Your task to perform on an android device: turn off location Image 0: 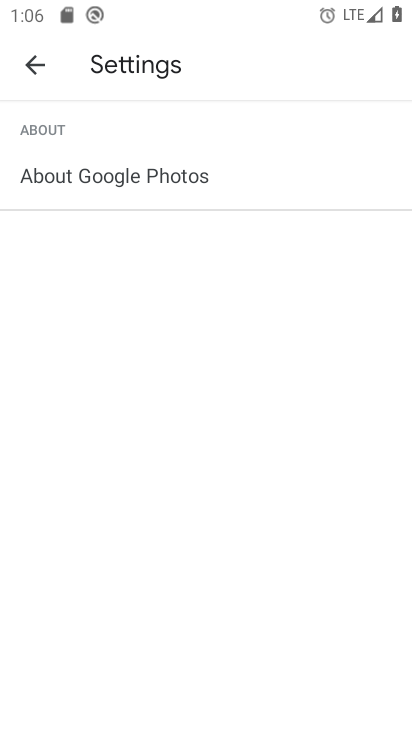
Step 0: press home button
Your task to perform on an android device: turn off location Image 1: 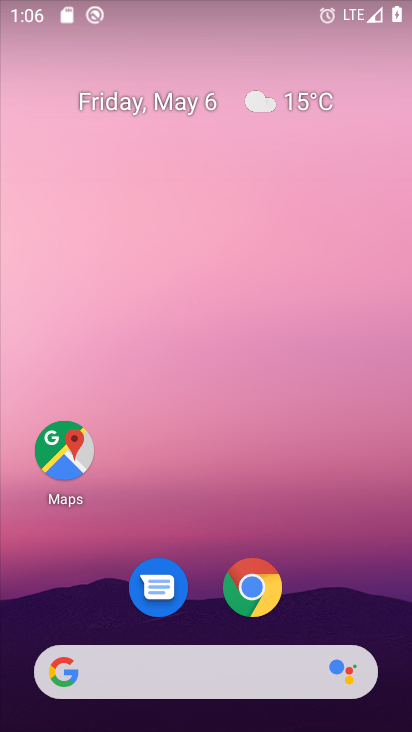
Step 1: drag from (352, 609) to (270, 99)
Your task to perform on an android device: turn off location Image 2: 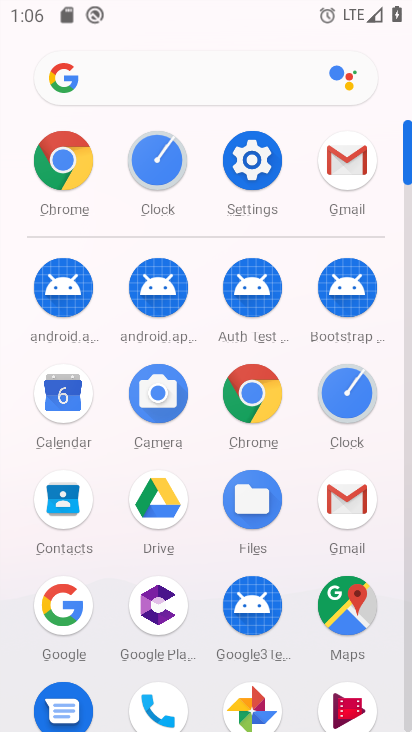
Step 2: click (250, 159)
Your task to perform on an android device: turn off location Image 3: 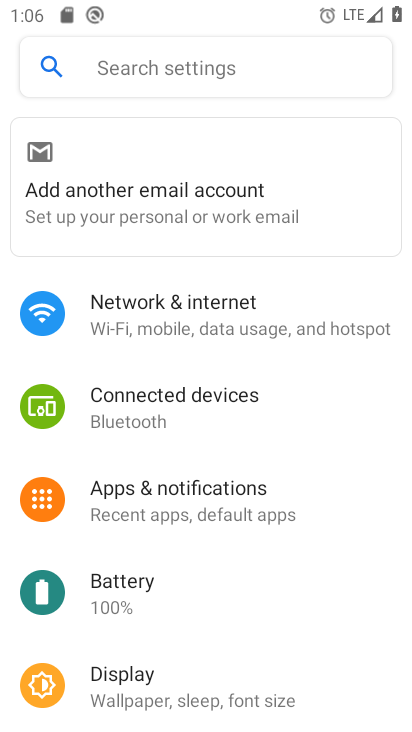
Step 3: drag from (224, 603) to (233, 240)
Your task to perform on an android device: turn off location Image 4: 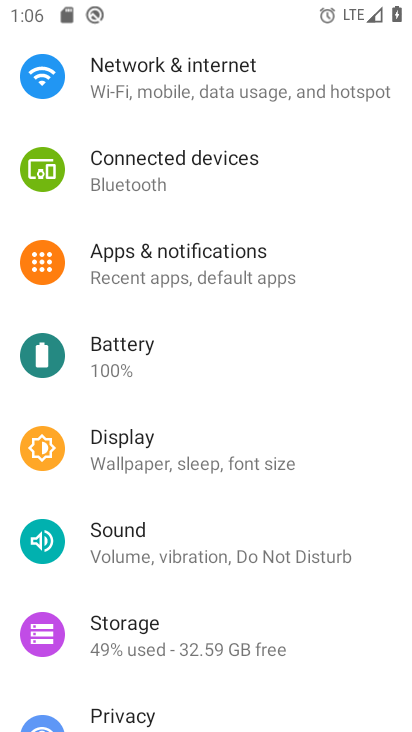
Step 4: drag from (179, 643) to (193, 211)
Your task to perform on an android device: turn off location Image 5: 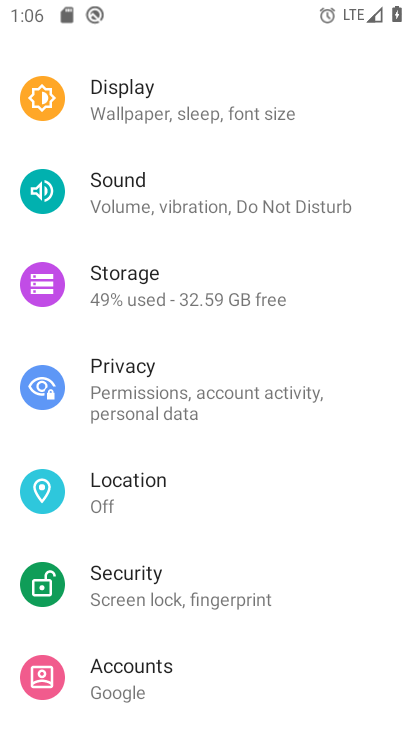
Step 5: click (152, 507)
Your task to perform on an android device: turn off location Image 6: 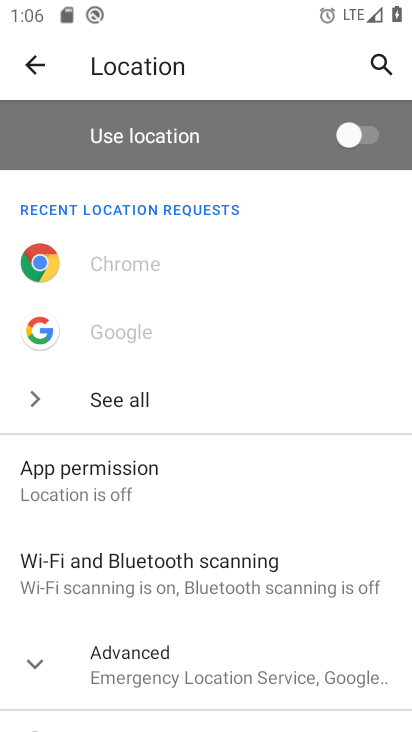
Step 6: task complete